Your task to perform on an android device: What's the weather going to be this weekend? Image 0: 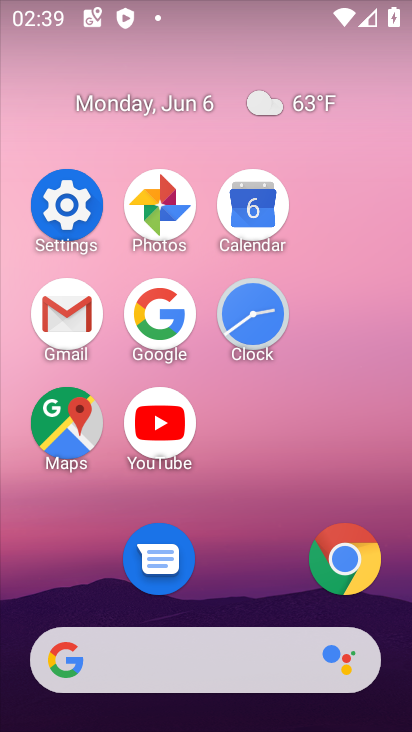
Step 0: click (160, 320)
Your task to perform on an android device: What's the weather going to be this weekend? Image 1: 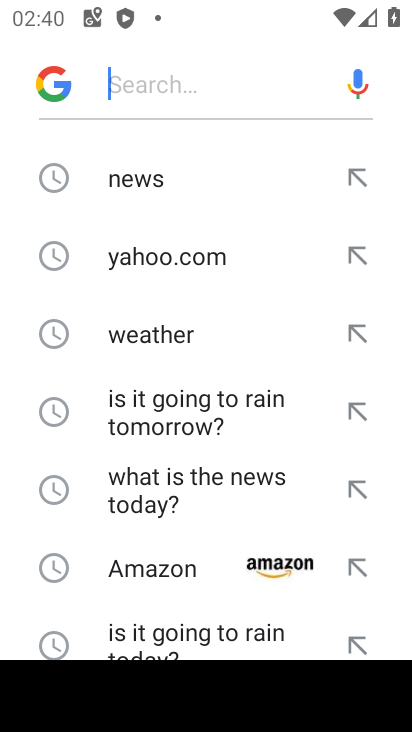
Step 1: click (151, 328)
Your task to perform on an android device: What's the weather going to be this weekend? Image 2: 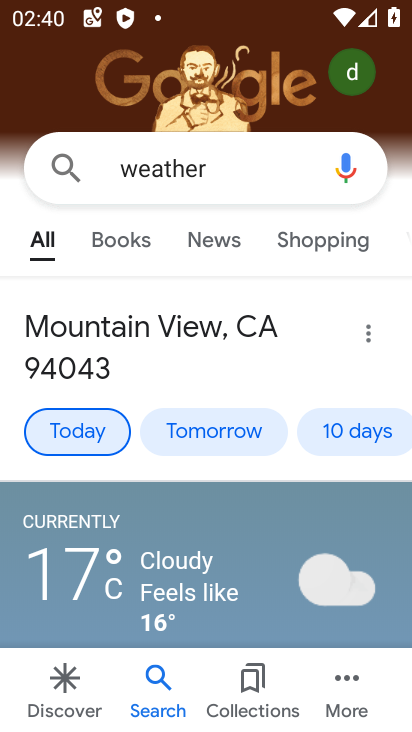
Step 2: click (394, 434)
Your task to perform on an android device: What's the weather going to be this weekend? Image 3: 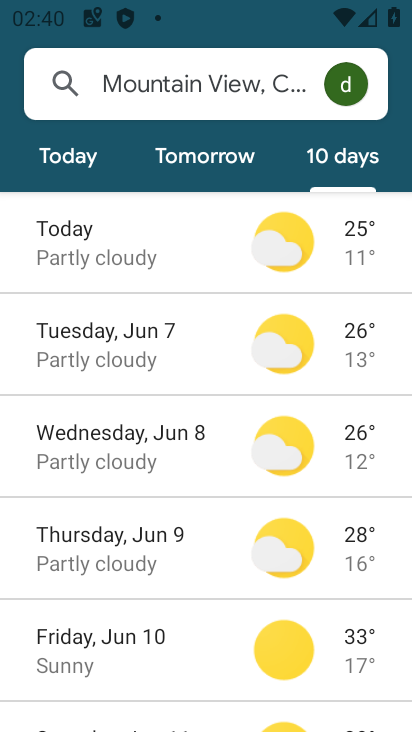
Step 3: drag from (143, 655) to (160, 382)
Your task to perform on an android device: What's the weather going to be this weekend? Image 4: 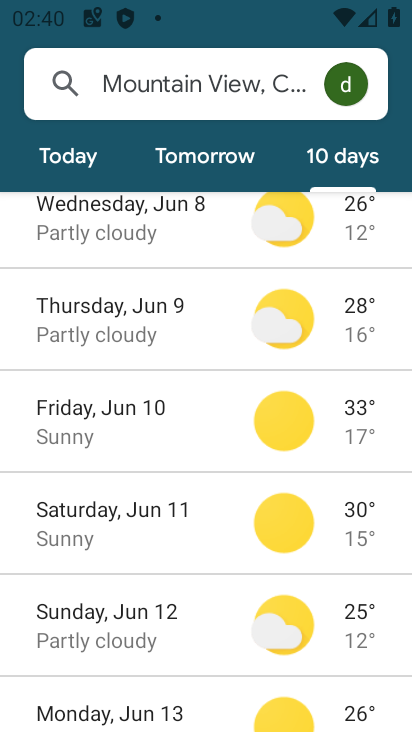
Step 4: click (144, 495)
Your task to perform on an android device: What's the weather going to be this weekend? Image 5: 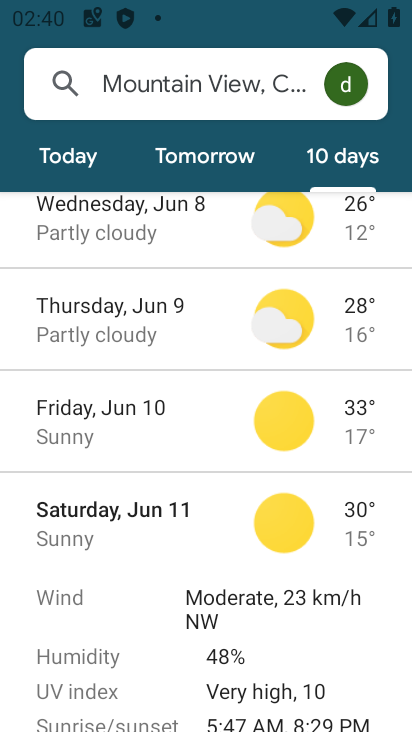
Step 5: task complete